Your task to perform on an android device: Set the phone to "Do not disturb". Image 0: 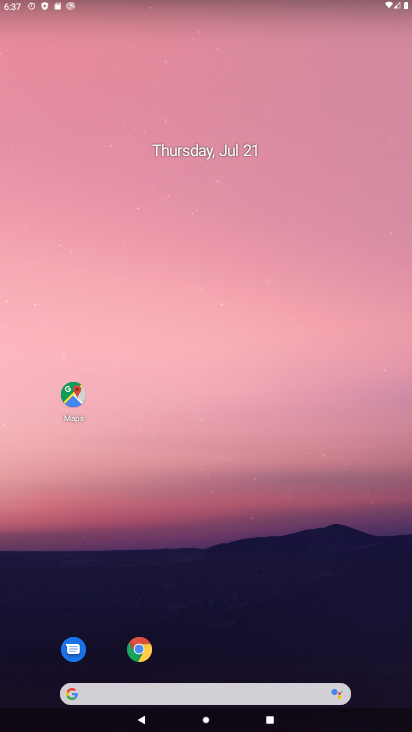
Step 0: drag from (157, 6) to (165, 374)
Your task to perform on an android device: Set the phone to "Do not disturb". Image 1: 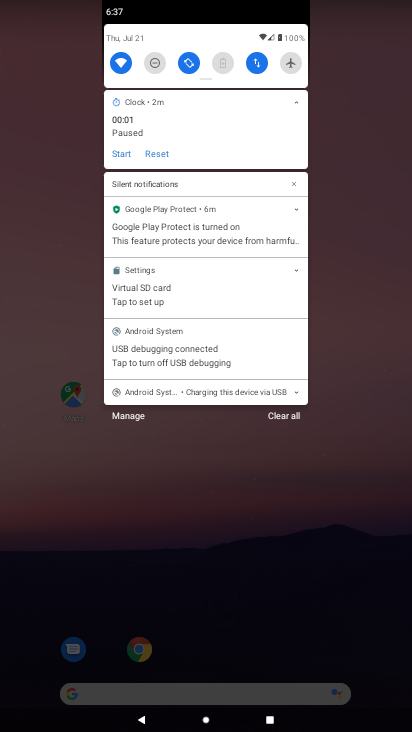
Step 1: click (154, 65)
Your task to perform on an android device: Set the phone to "Do not disturb". Image 2: 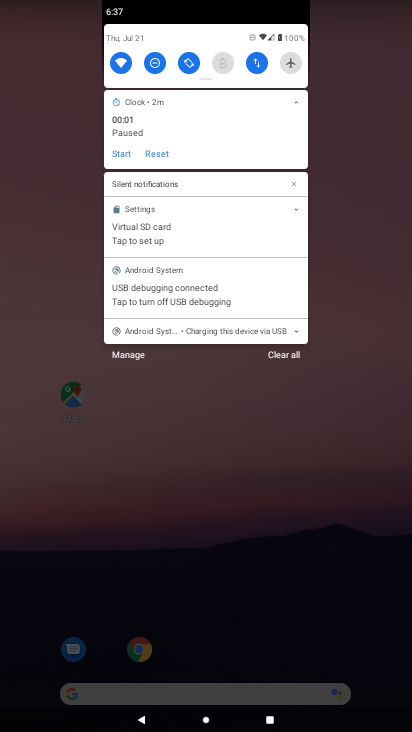
Step 2: task complete